Your task to perform on an android device: Add asus rog to the cart on bestbuy.com, then select checkout. Image 0: 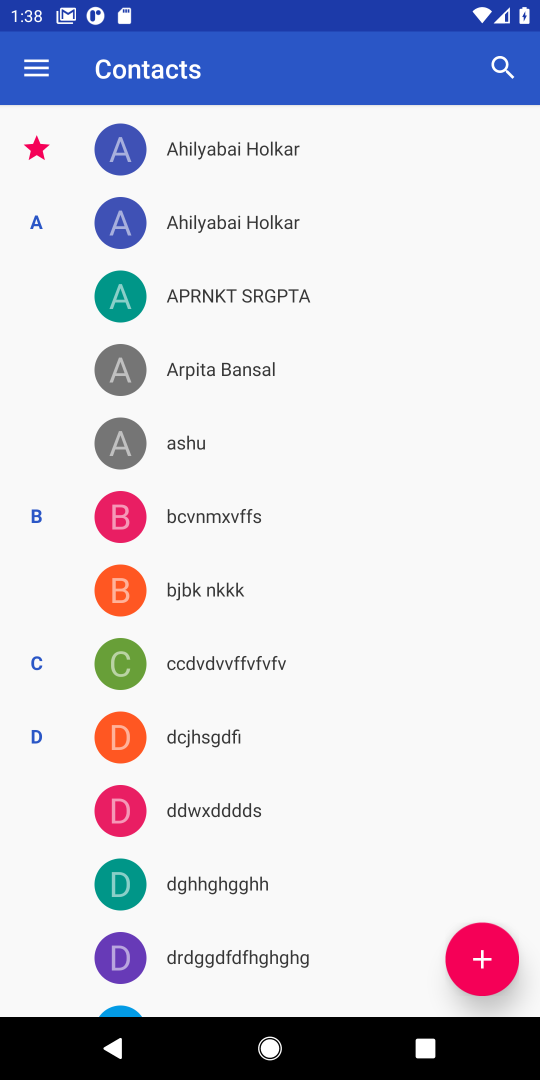
Step 0: press home button
Your task to perform on an android device: Add asus rog to the cart on bestbuy.com, then select checkout. Image 1: 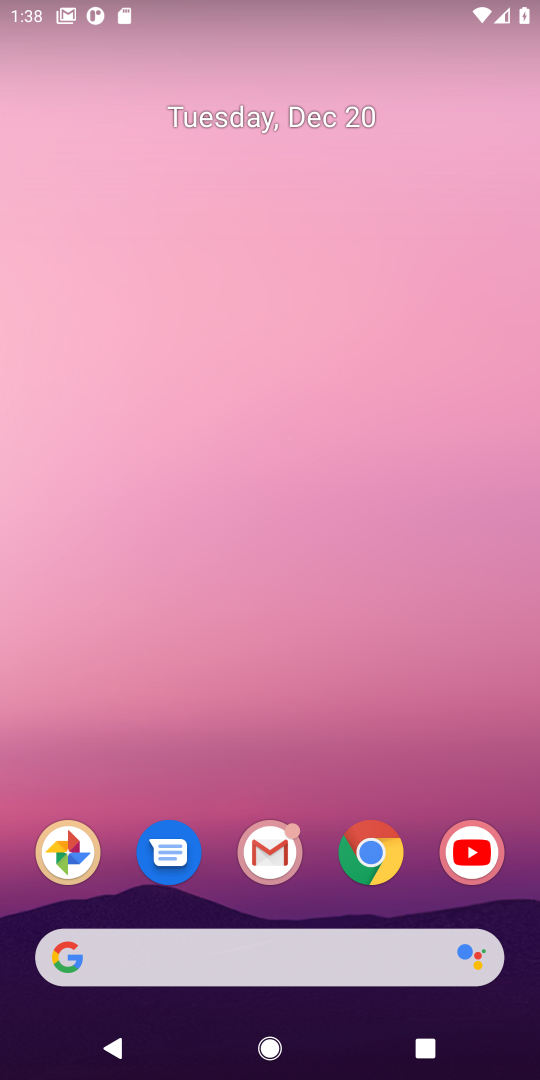
Step 1: click (374, 858)
Your task to perform on an android device: Add asus rog to the cart on bestbuy.com, then select checkout. Image 2: 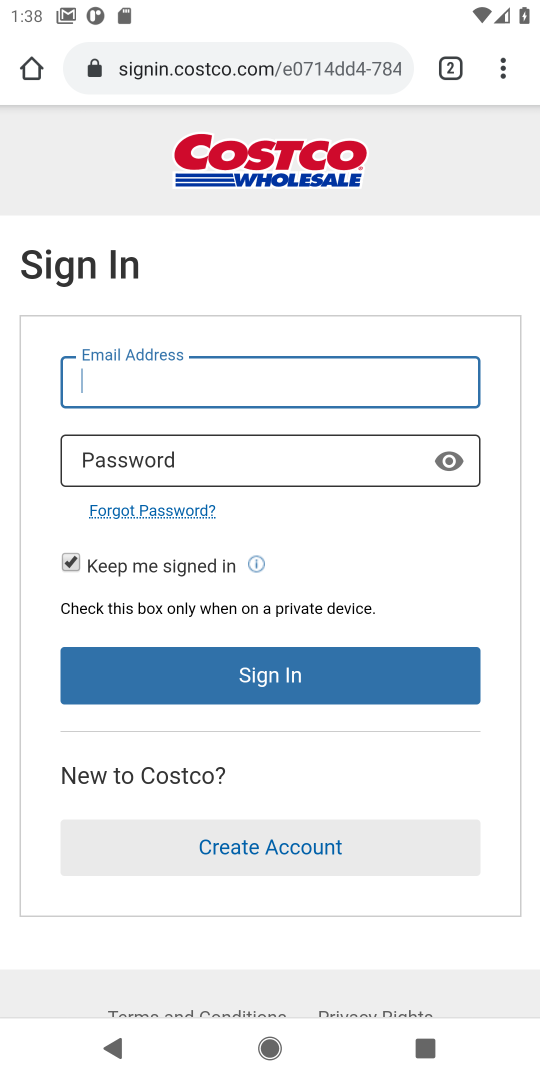
Step 2: click (196, 75)
Your task to perform on an android device: Add asus rog to the cart on bestbuy.com, then select checkout. Image 3: 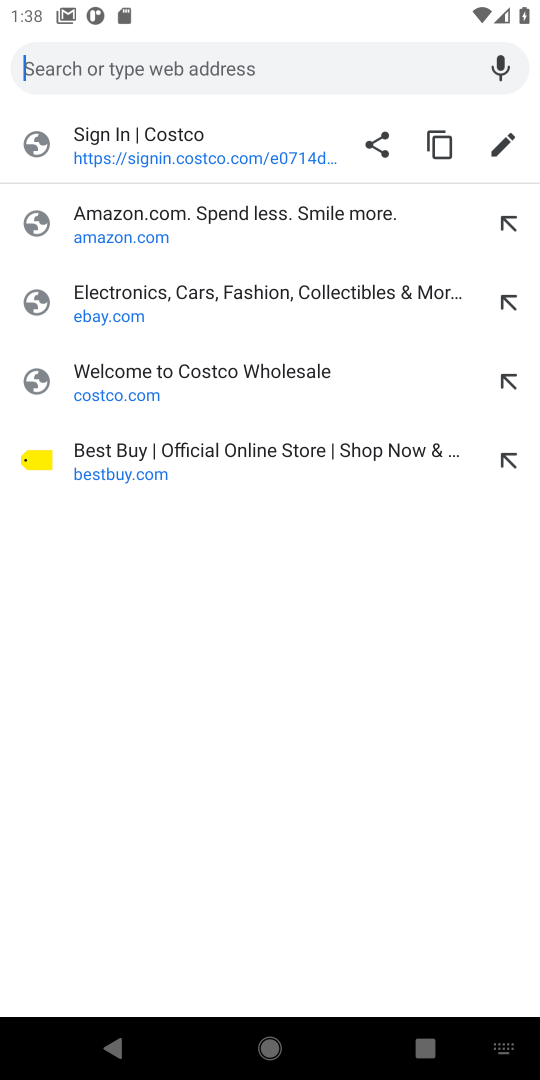
Step 3: click (122, 450)
Your task to perform on an android device: Add asus rog to the cart on bestbuy.com, then select checkout. Image 4: 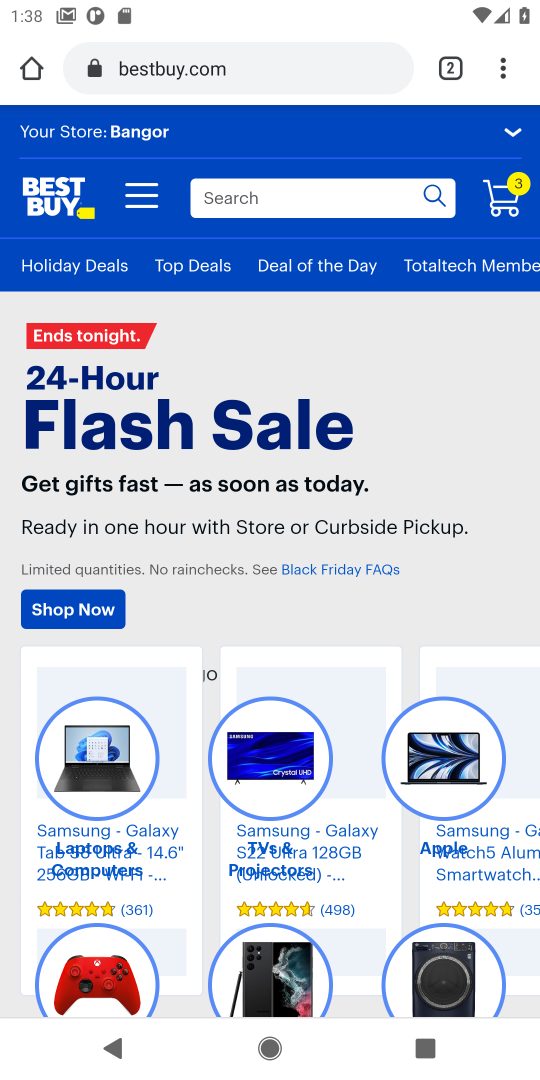
Step 4: click (316, 204)
Your task to perform on an android device: Add asus rog to the cart on bestbuy.com, then select checkout. Image 5: 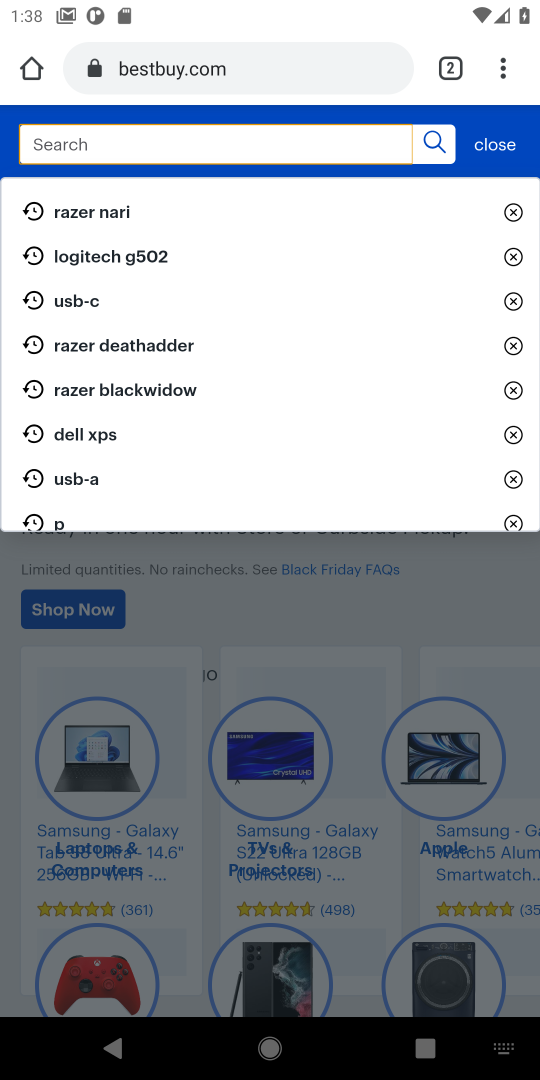
Step 5: type "asus rog"
Your task to perform on an android device: Add asus rog to the cart on bestbuy.com, then select checkout. Image 6: 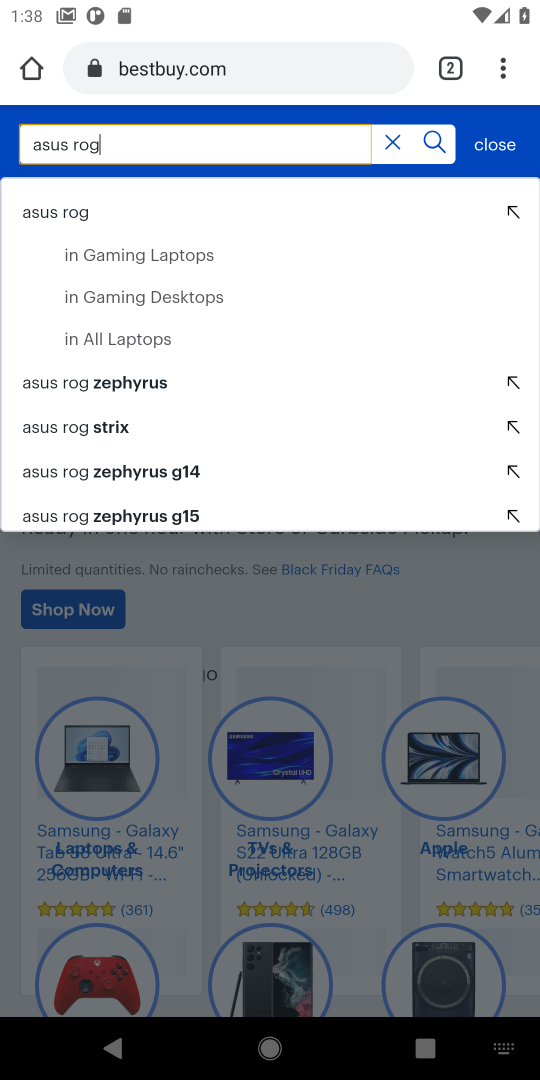
Step 6: click (54, 220)
Your task to perform on an android device: Add asus rog to the cart on bestbuy.com, then select checkout. Image 7: 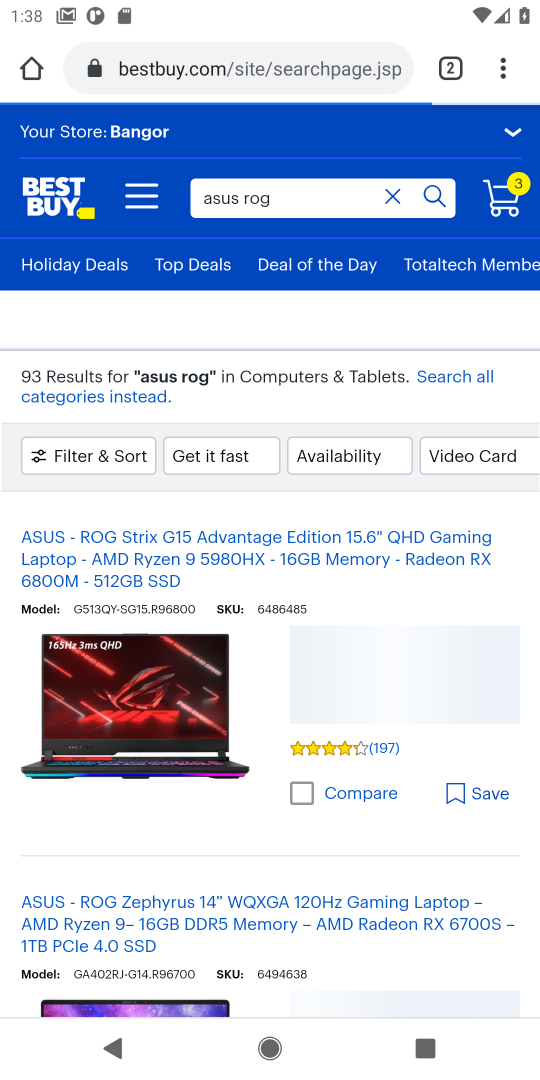
Step 7: drag from (233, 717) to (190, 371)
Your task to perform on an android device: Add asus rog to the cart on bestbuy.com, then select checkout. Image 8: 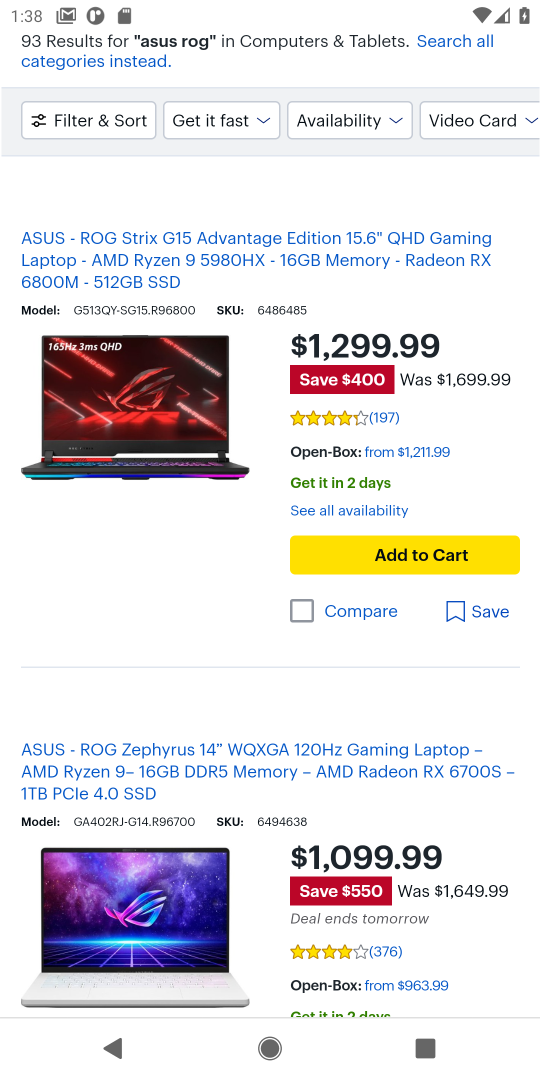
Step 8: click (424, 560)
Your task to perform on an android device: Add asus rog to the cart on bestbuy.com, then select checkout. Image 9: 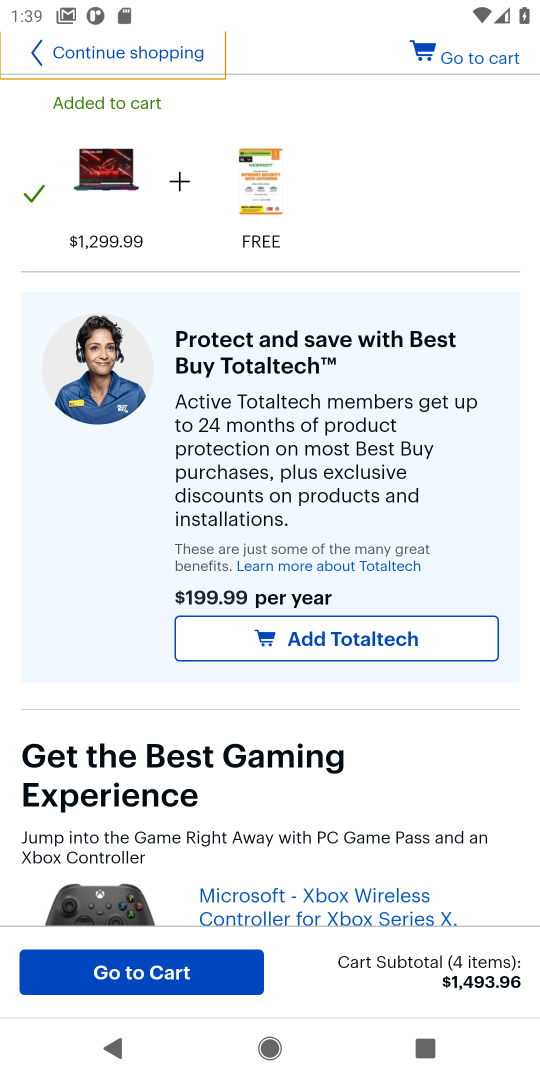
Step 9: click (492, 67)
Your task to perform on an android device: Add asus rog to the cart on bestbuy.com, then select checkout. Image 10: 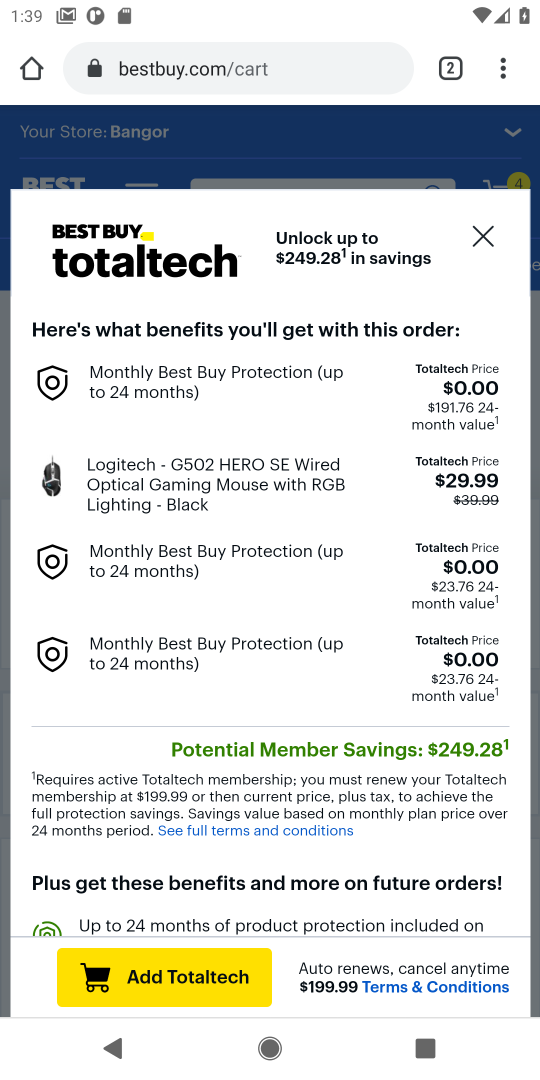
Step 10: click (495, 246)
Your task to perform on an android device: Add asus rog to the cart on bestbuy.com, then select checkout. Image 11: 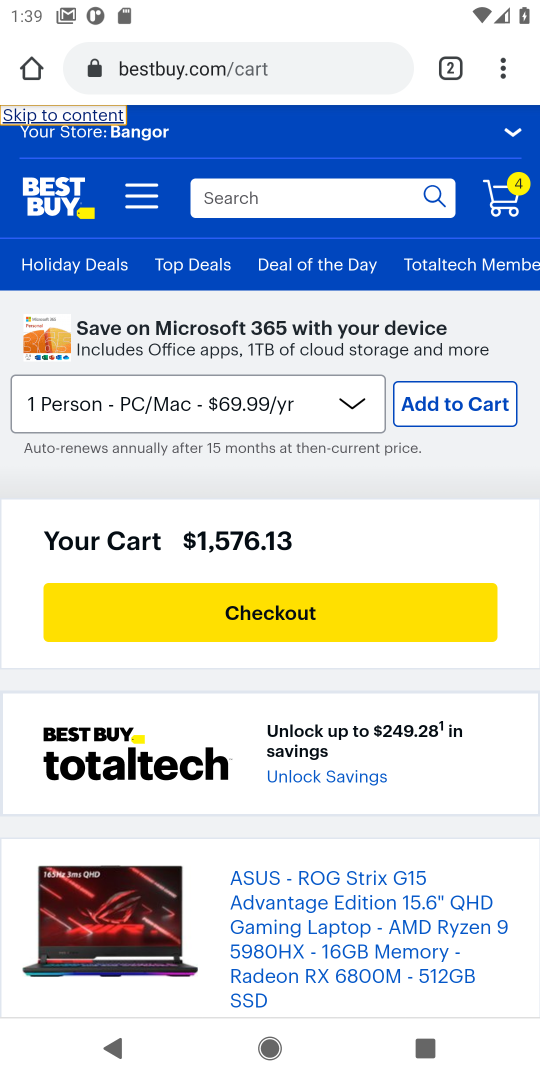
Step 11: click (246, 615)
Your task to perform on an android device: Add asus rog to the cart on bestbuy.com, then select checkout. Image 12: 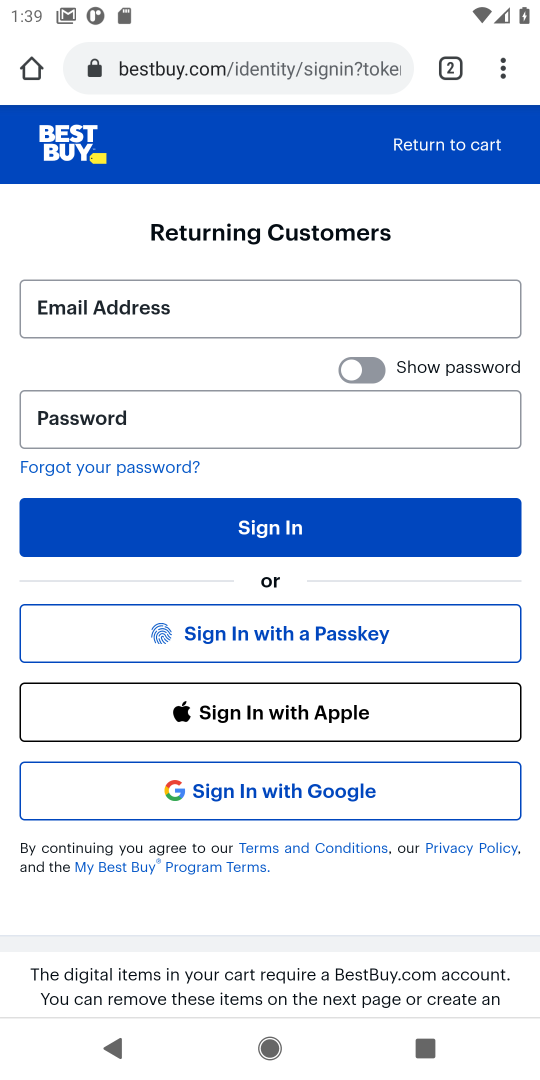
Step 12: task complete